Your task to perform on an android device: Open eBay Image 0: 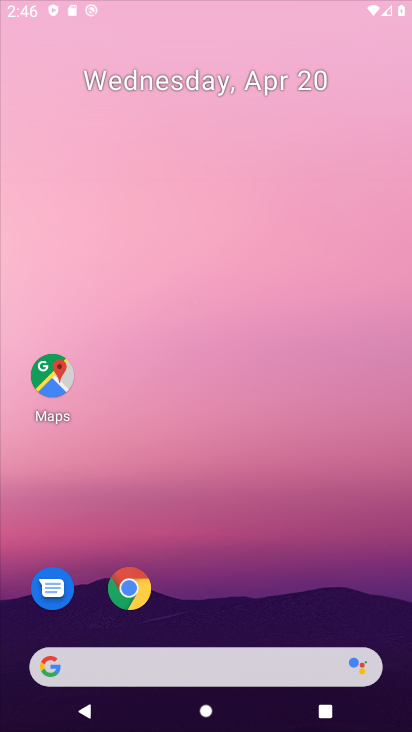
Step 0: click (182, 84)
Your task to perform on an android device: Open eBay Image 1: 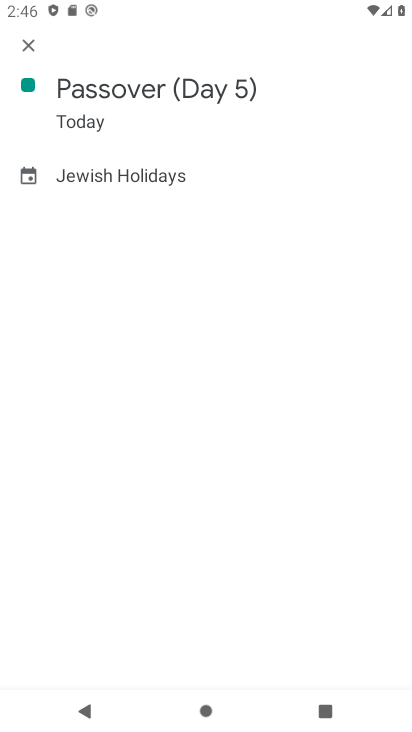
Step 1: press home button
Your task to perform on an android device: Open eBay Image 2: 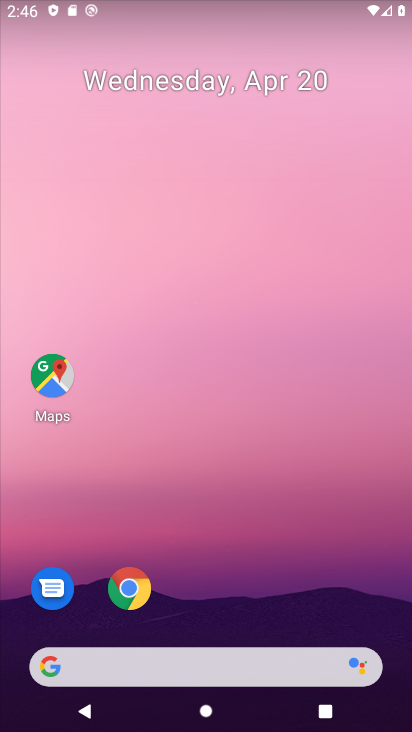
Step 2: click (134, 593)
Your task to perform on an android device: Open eBay Image 3: 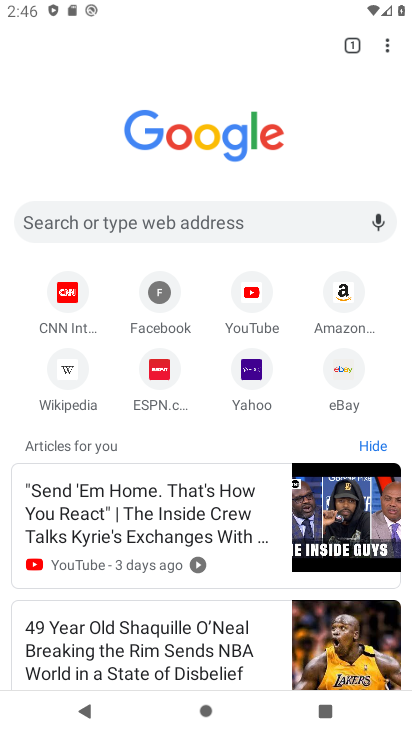
Step 3: click (344, 370)
Your task to perform on an android device: Open eBay Image 4: 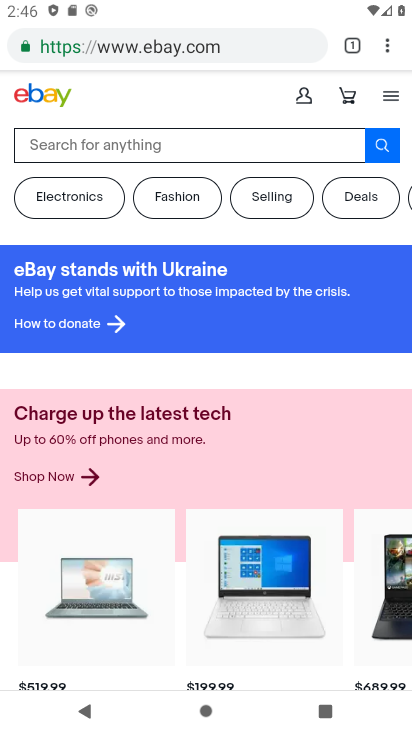
Step 4: task complete